Your task to perform on an android device: open app "LiveIn - Share Your Moment" Image 0: 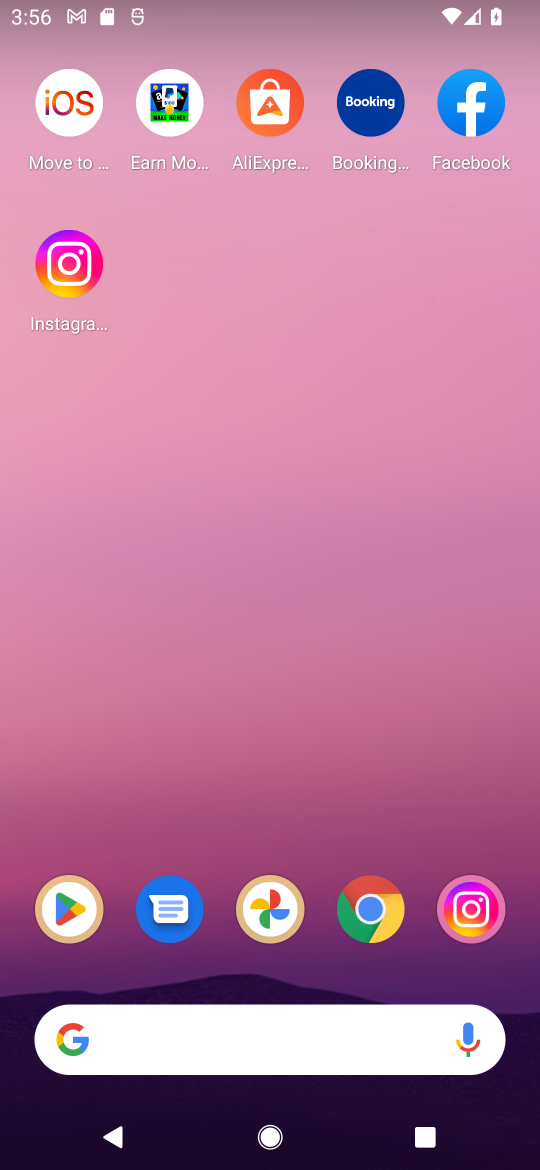
Step 0: click (69, 914)
Your task to perform on an android device: open app "LiveIn - Share Your Moment" Image 1: 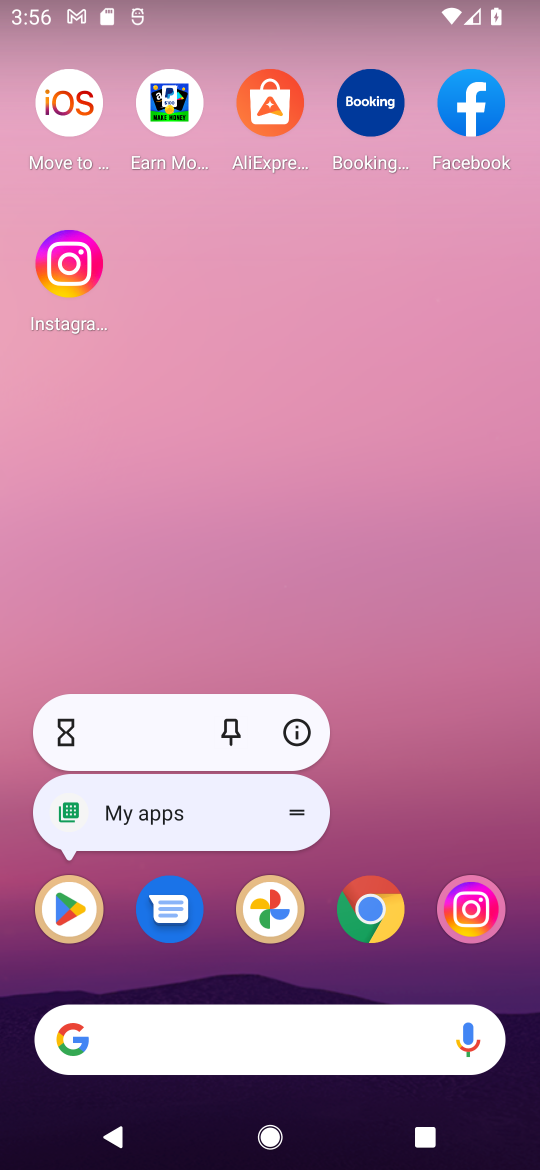
Step 1: click (38, 900)
Your task to perform on an android device: open app "LiveIn - Share Your Moment" Image 2: 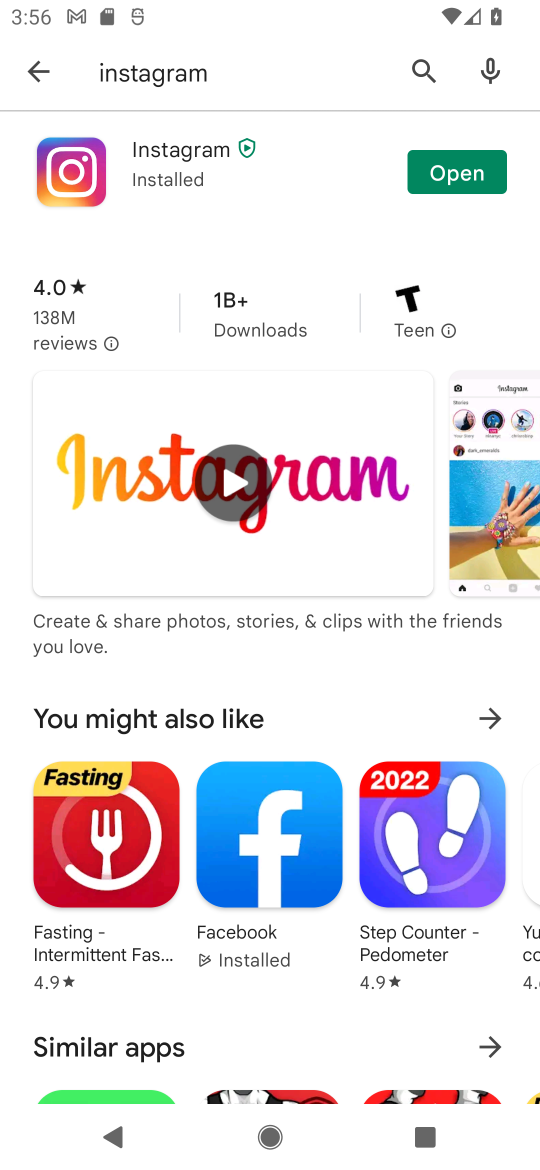
Step 2: click (141, 77)
Your task to perform on an android device: open app "LiveIn - Share Your Moment" Image 3: 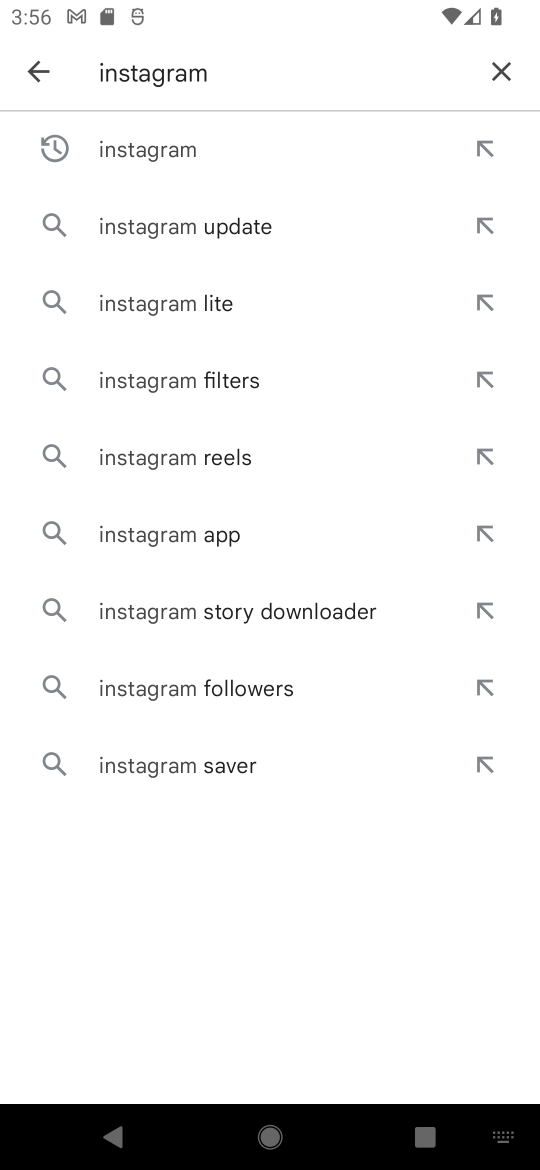
Step 3: click (506, 65)
Your task to perform on an android device: open app "LiveIn - Share Your Moment" Image 4: 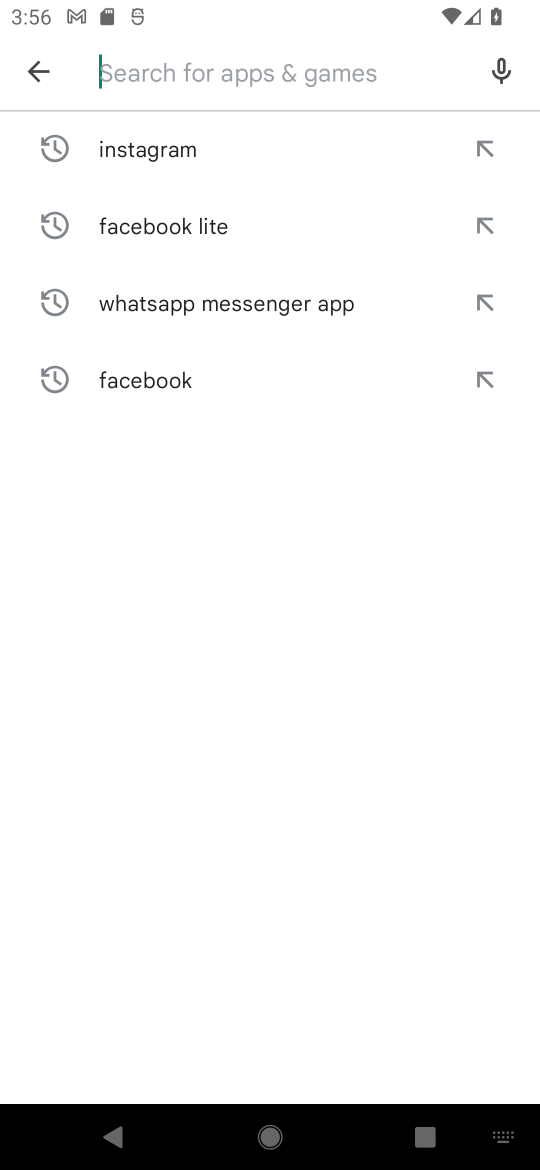
Step 4: type "LiveIn"
Your task to perform on an android device: open app "LiveIn - Share Your Moment" Image 5: 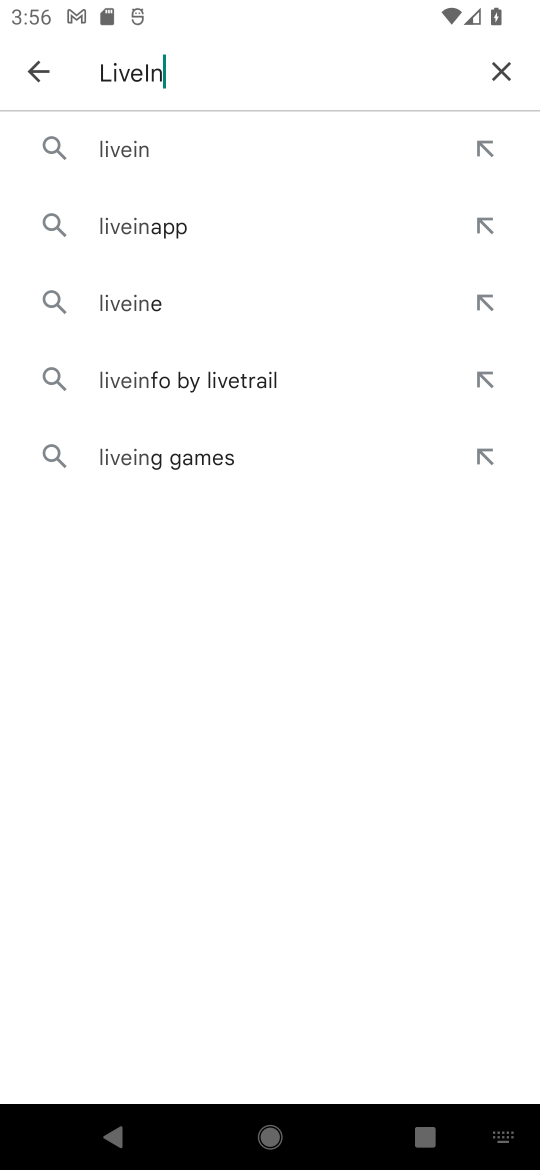
Step 5: click (136, 152)
Your task to perform on an android device: open app "LiveIn - Share Your Moment" Image 6: 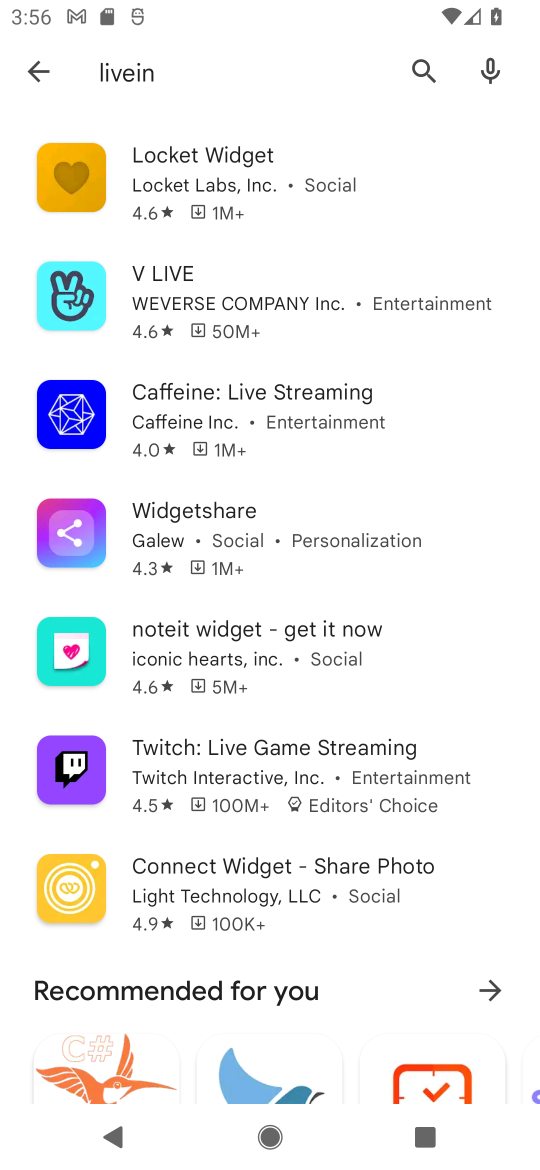
Step 6: task complete